Your task to perform on an android device: What's on my calendar tomorrow? Image 0: 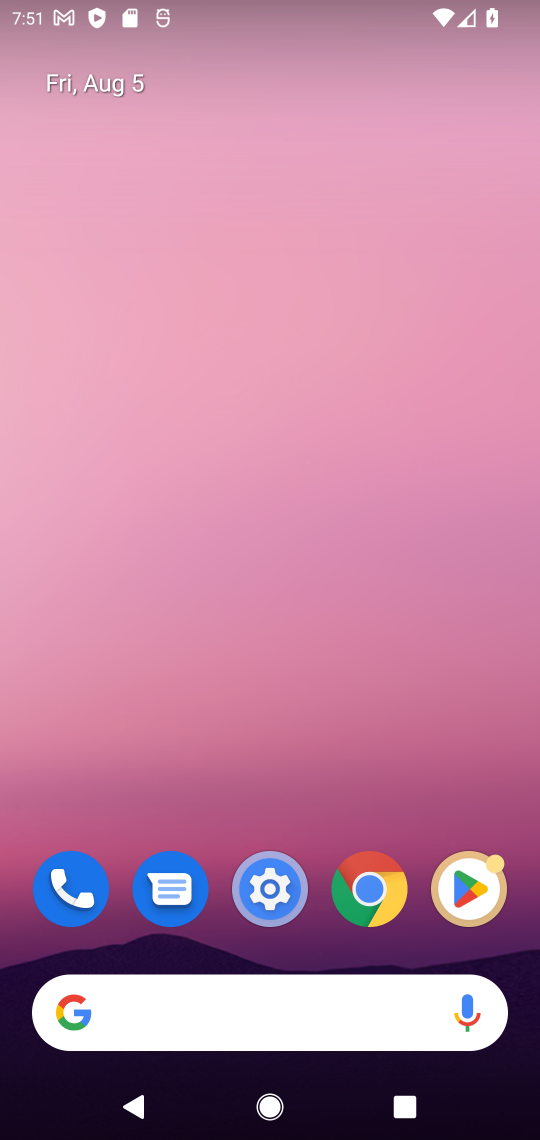
Step 0: drag from (236, 932) to (306, 298)
Your task to perform on an android device: What's on my calendar tomorrow? Image 1: 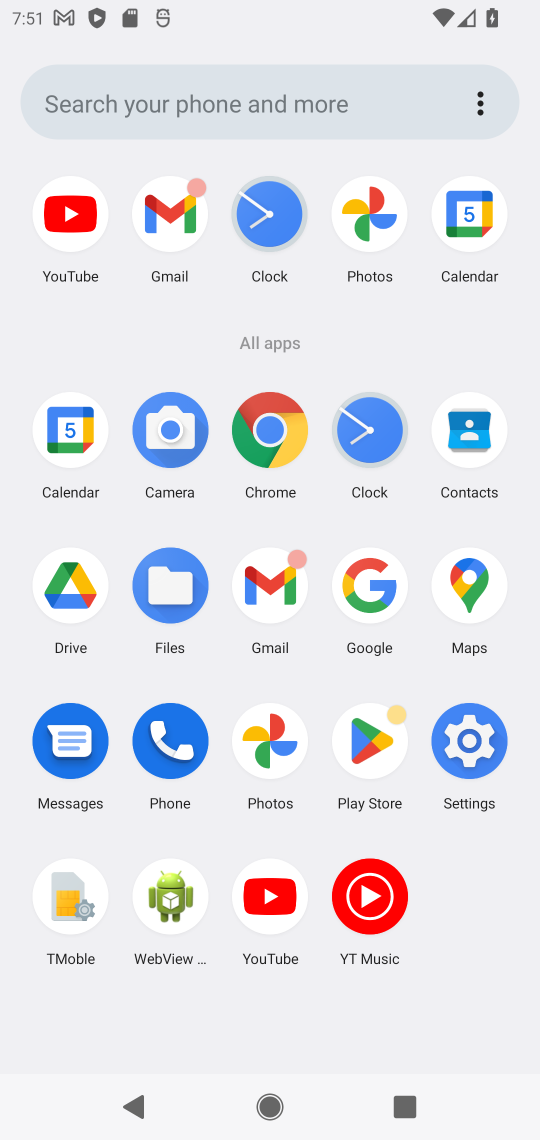
Step 1: click (474, 209)
Your task to perform on an android device: What's on my calendar tomorrow? Image 2: 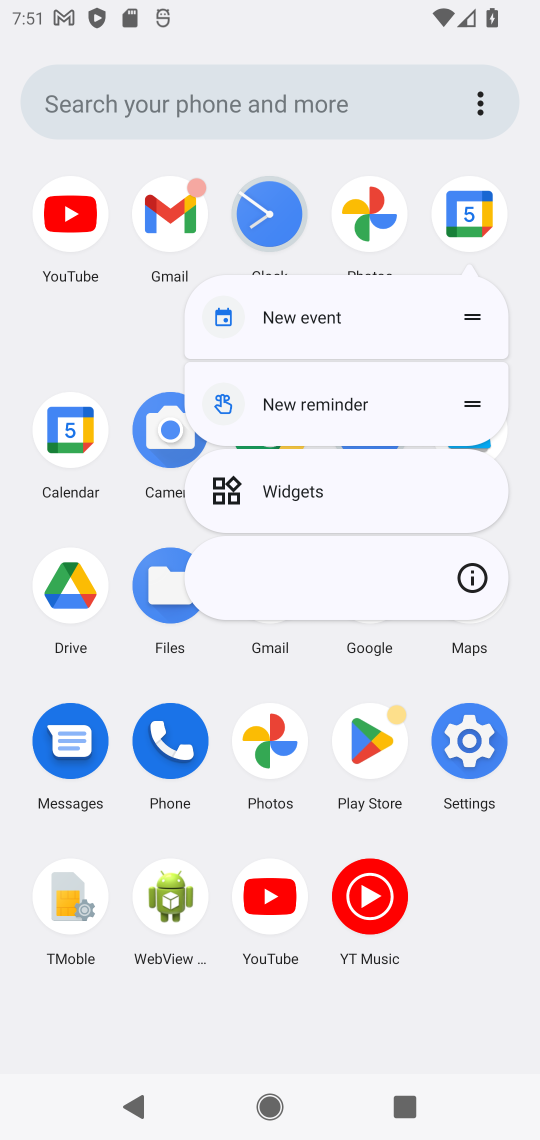
Step 2: click (474, 209)
Your task to perform on an android device: What's on my calendar tomorrow? Image 3: 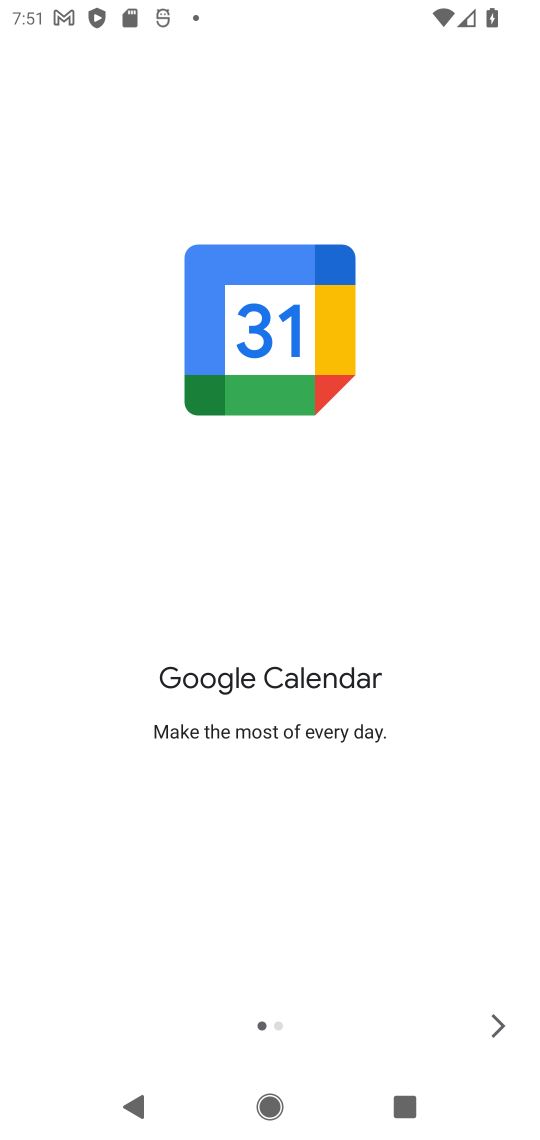
Step 3: click (492, 1037)
Your task to perform on an android device: What's on my calendar tomorrow? Image 4: 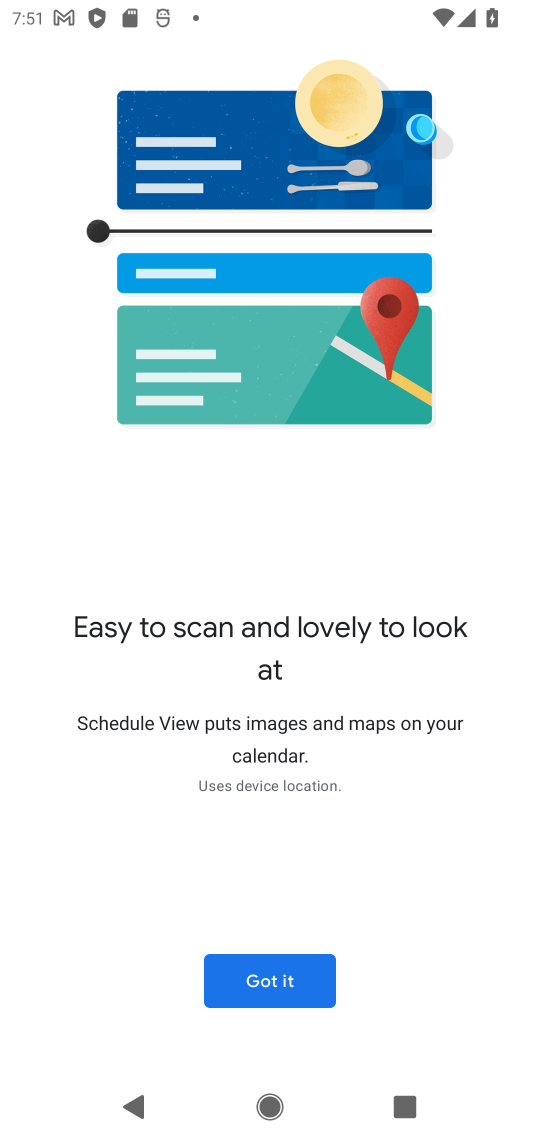
Step 4: click (489, 1029)
Your task to perform on an android device: What's on my calendar tomorrow? Image 5: 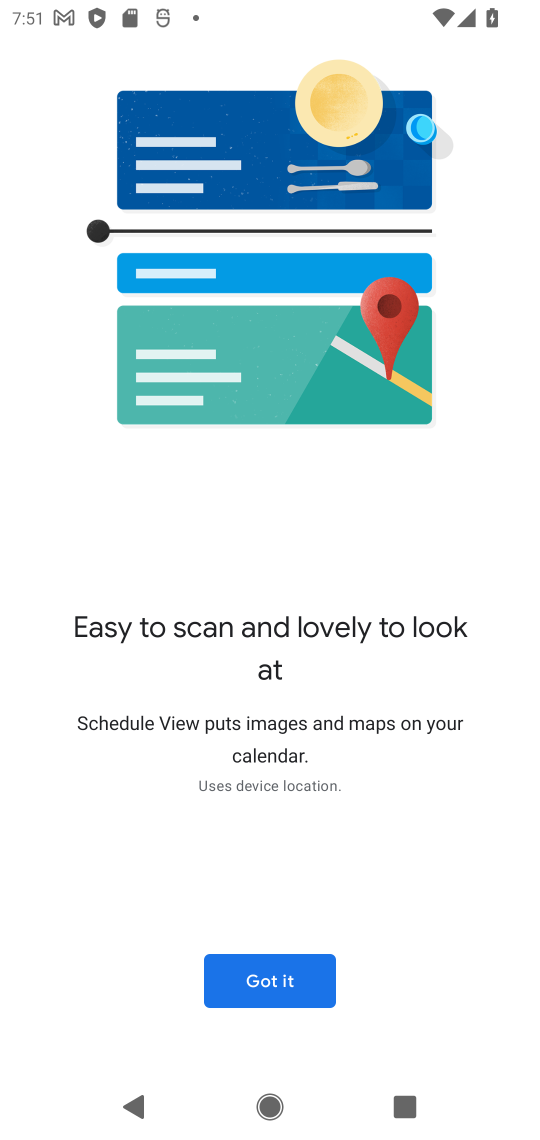
Step 5: click (246, 967)
Your task to perform on an android device: What's on my calendar tomorrow? Image 6: 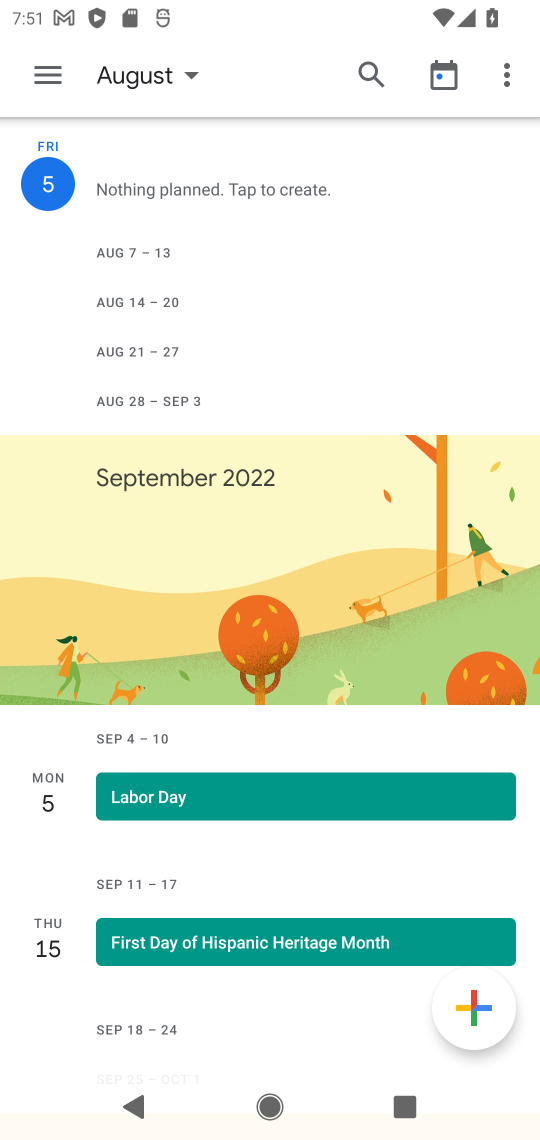
Step 6: click (56, 62)
Your task to perform on an android device: What's on my calendar tomorrow? Image 7: 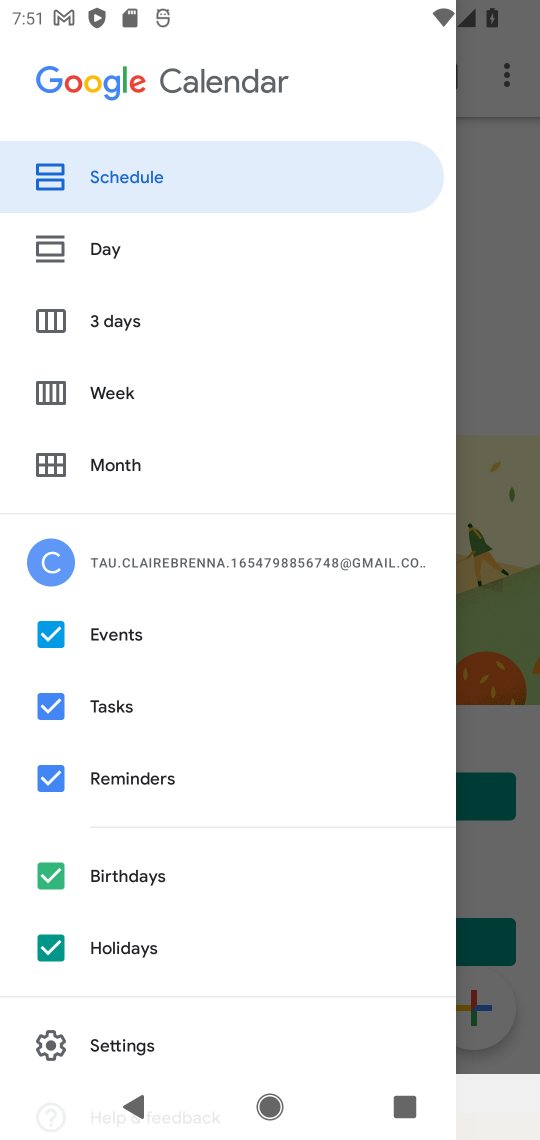
Step 7: click (130, 400)
Your task to perform on an android device: What's on my calendar tomorrow? Image 8: 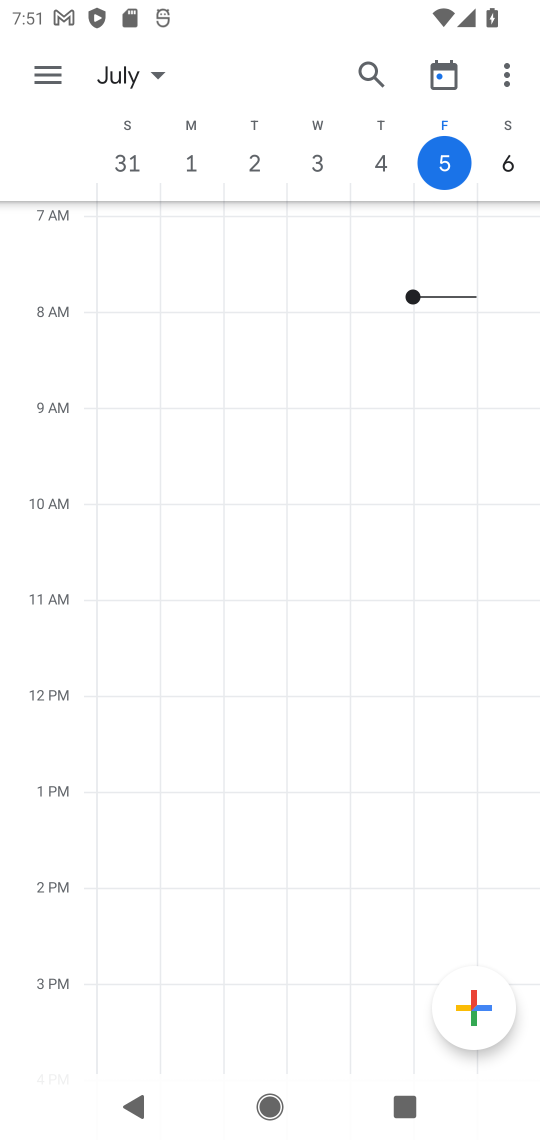
Step 8: click (496, 165)
Your task to perform on an android device: What's on my calendar tomorrow? Image 9: 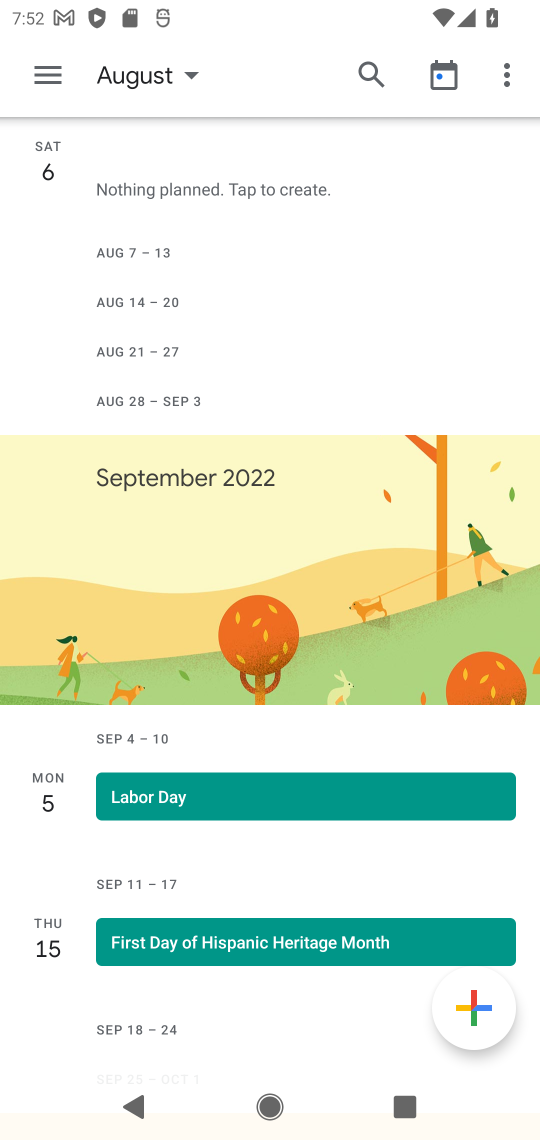
Step 9: task complete